Your task to perform on an android device: Go to Android settings Image 0: 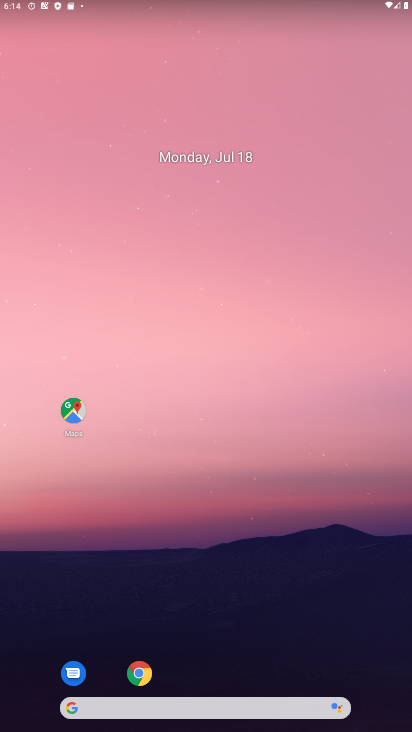
Step 0: drag from (239, 582) to (243, 283)
Your task to perform on an android device: Go to Android settings Image 1: 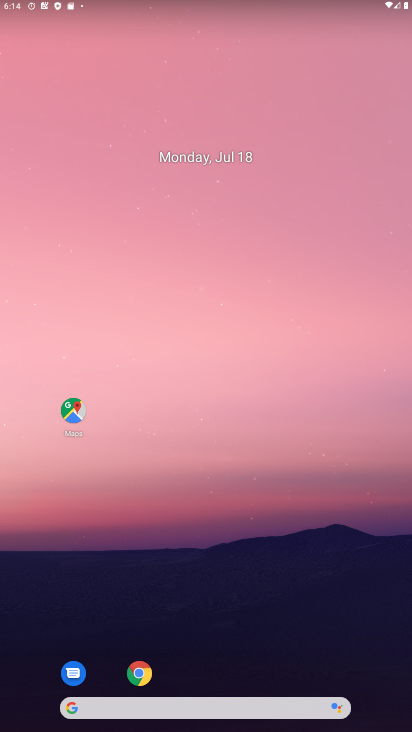
Step 1: drag from (282, 607) to (290, 75)
Your task to perform on an android device: Go to Android settings Image 2: 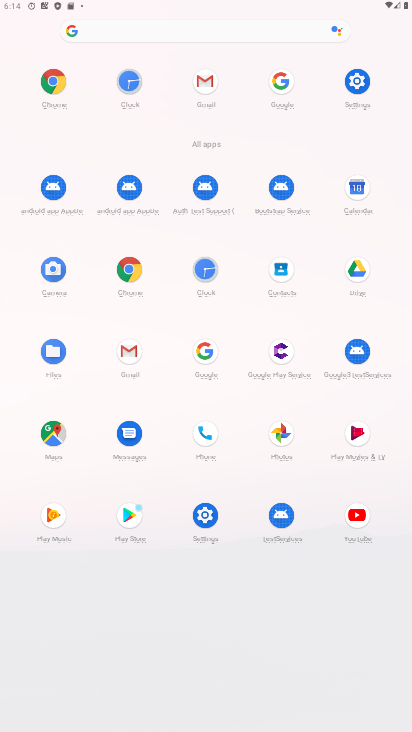
Step 2: click (204, 516)
Your task to perform on an android device: Go to Android settings Image 3: 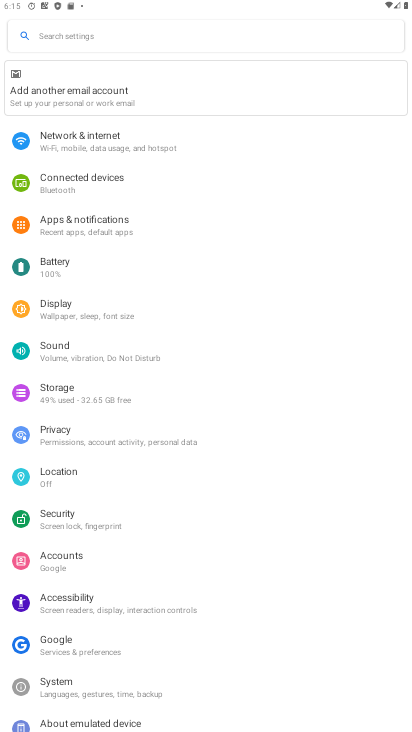
Step 3: task complete